Your task to perform on an android device: Open Google Image 0: 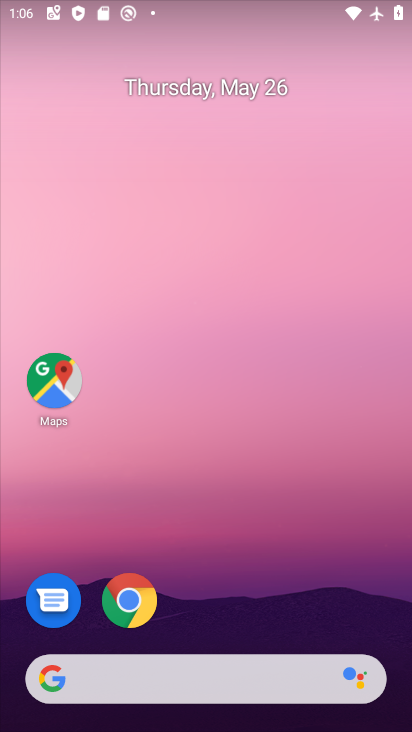
Step 0: drag from (288, 577) to (286, 40)
Your task to perform on an android device: Open Google Image 1: 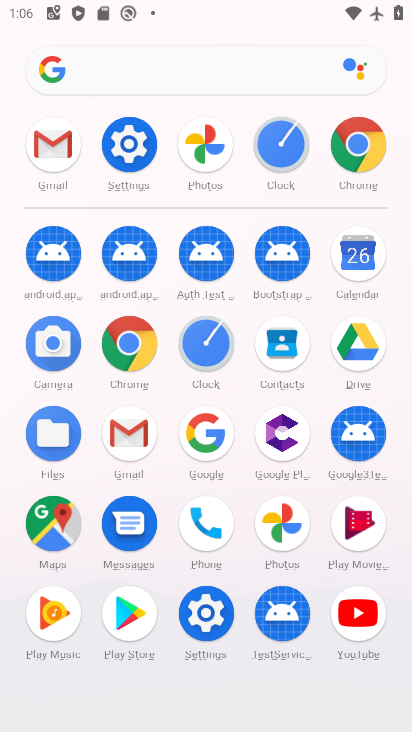
Step 1: click (208, 426)
Your task to perform on an android device: Open Google Image 2: 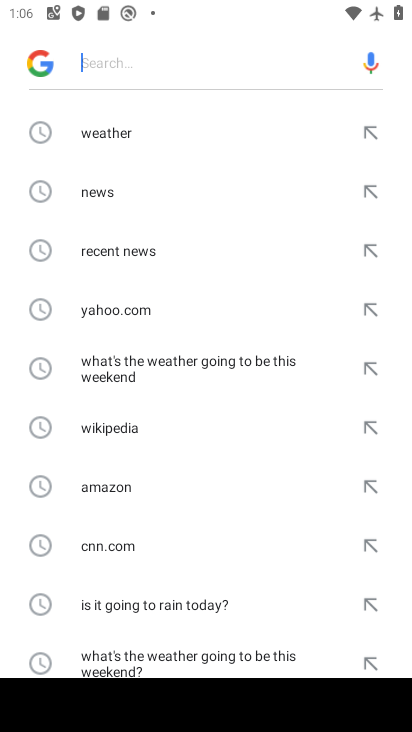
Step 2: task complete